Your task to perform on an android device: check storage Image 0: 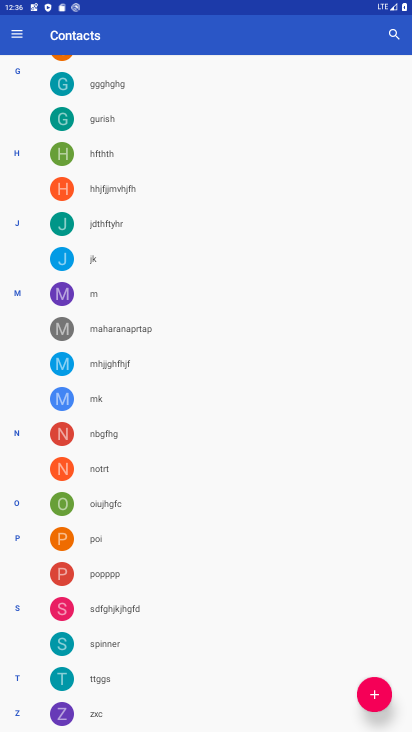
Step 0: drag from (203, 729) to (330, 289)
Your task to perform on an android device: check storage Image 1: 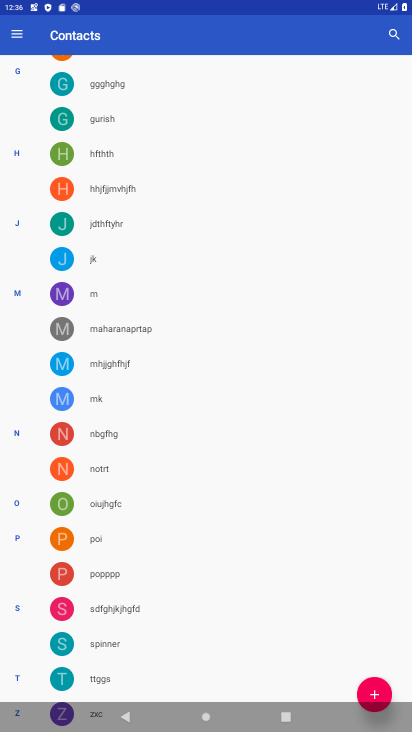
Step 1: click (228, 715)
Your task to perform on an android device: check storage Image 2: 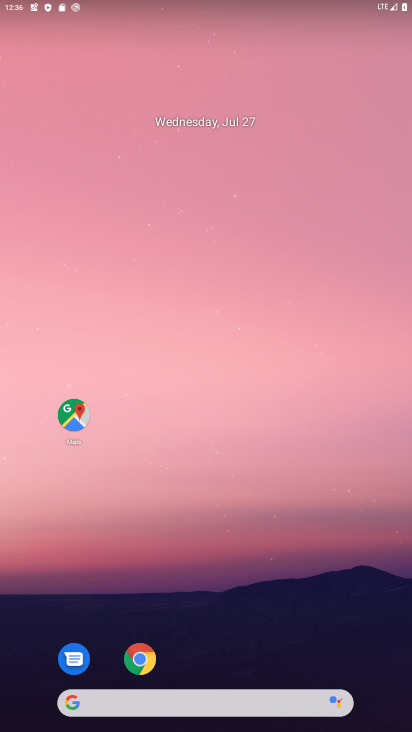
Step 2: drag from (203, 635) to (289, 214)
Your task to perform on an android device: check storage Image 3: 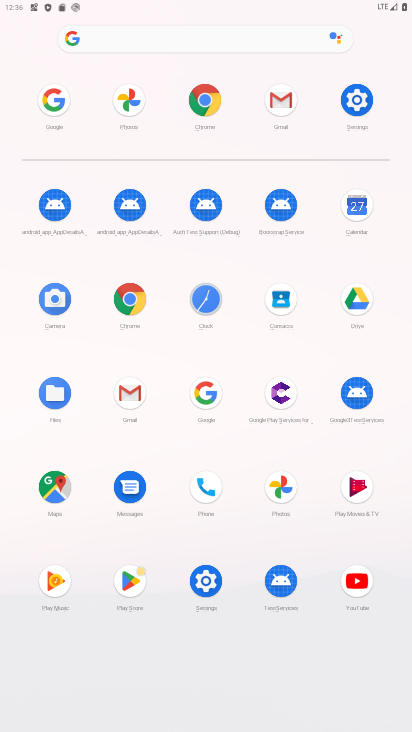
Step 3: click (220, 575)
Your task to perform on an android device: check storage Image 4: 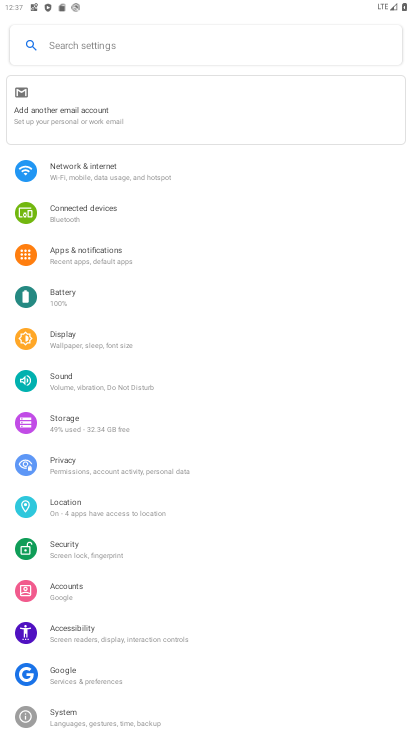
Step 4: click (106, 432)
Your task to perform on an android device: check storage Image 5: 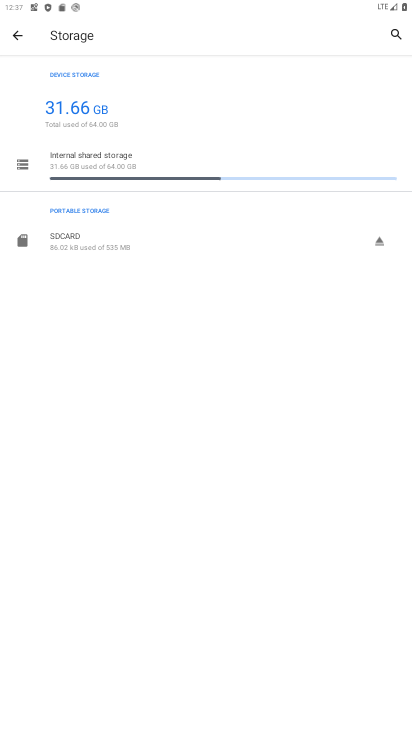
Step 5: task complete